Your task to perform on an android device: change text size in settings app Image 0: 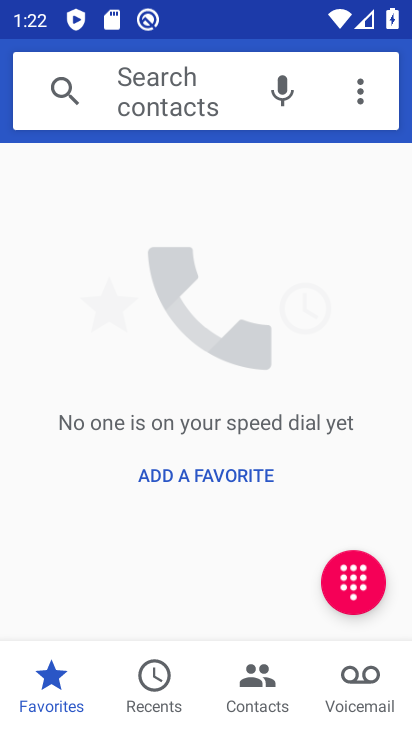
Step 0: press home button
Your task to perform on an android device: change text size in settings app Image 1: 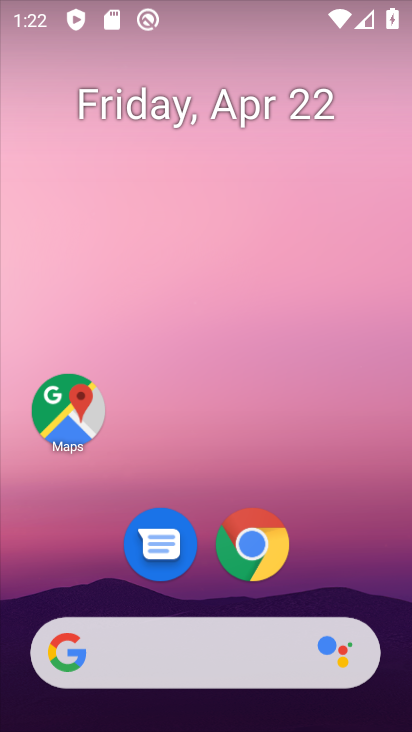
Step 1: drag from (323, 520) to (300, 10)
Your task to perform on an android device: change text size in settings app Image 2: 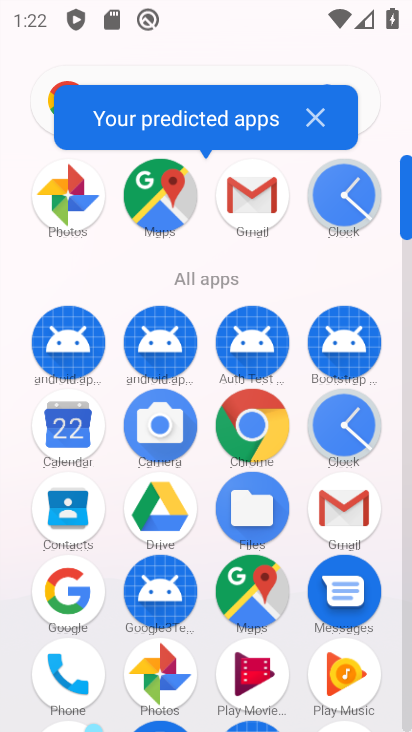
Step 2: drag from (303, 296) to (361, 88)
Your task to perform on an android device: change text size in settings app Image 3: 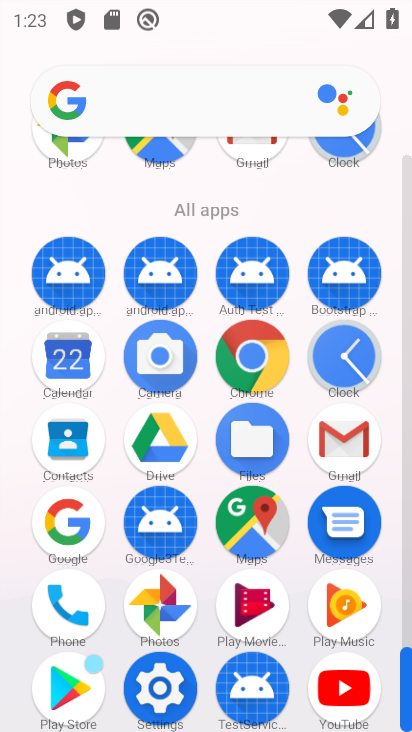
Step 3: click (161, 693)
Your task to perform on an android device: change text size in settings app Image 4: 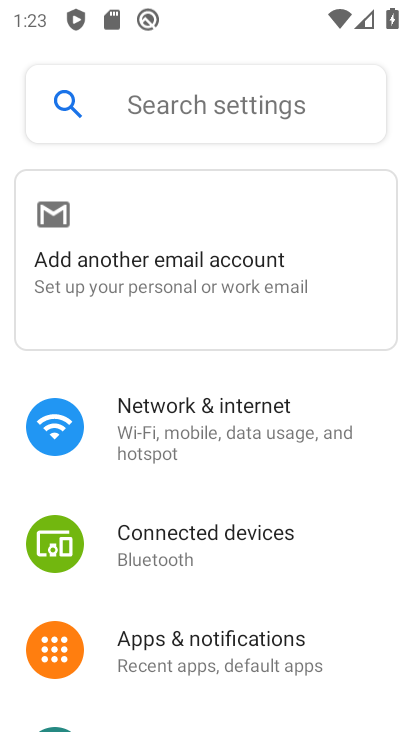
Step 4: drag from (231, 608) to (301, 485)
Your task to perform on an android device: change text size in settings app Image 5: 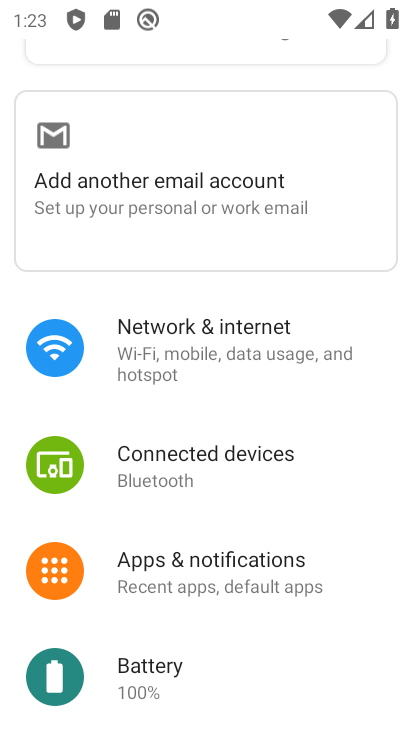
Step 5: drag from (202, 619) to (286, 517)
Your task to perform on an android device: change text size in settings app Image 6: 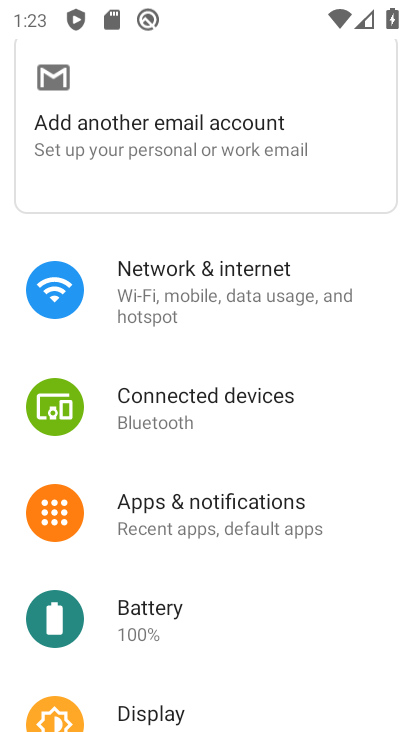
Step 6: drag from (222, 631) to (320, 491)
Your task to perform on an android device: change text size in settings app Image 7: 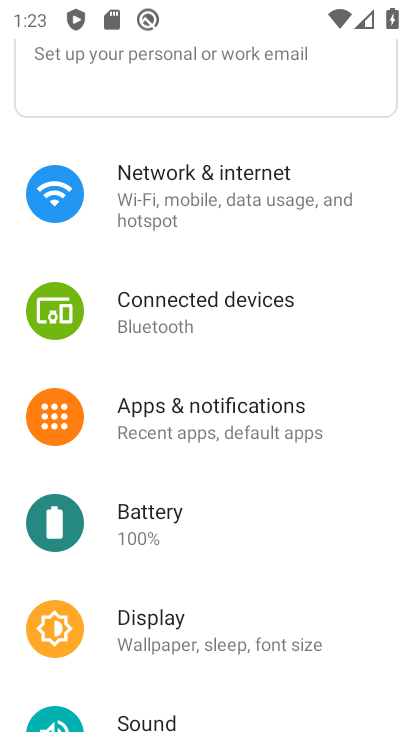
Step 7: drag from (240, 596) to (301, 516)
Your task to perform on an android device: change text size in settings app Image 8: 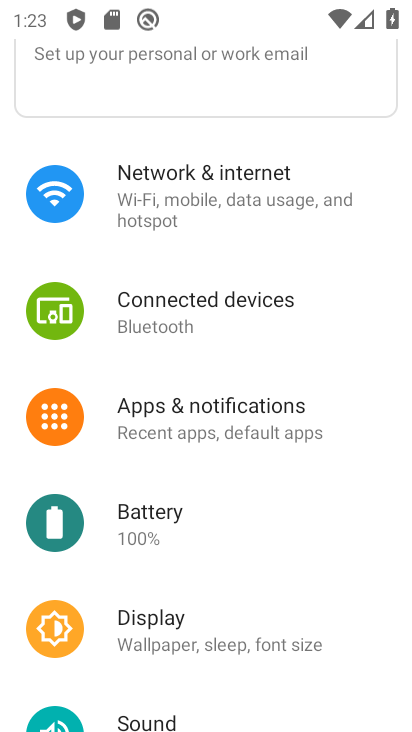
Step 8: drag from (252, 684) to (321, 562)
Your task to perform on an android device: change text size in settings app Image 9: 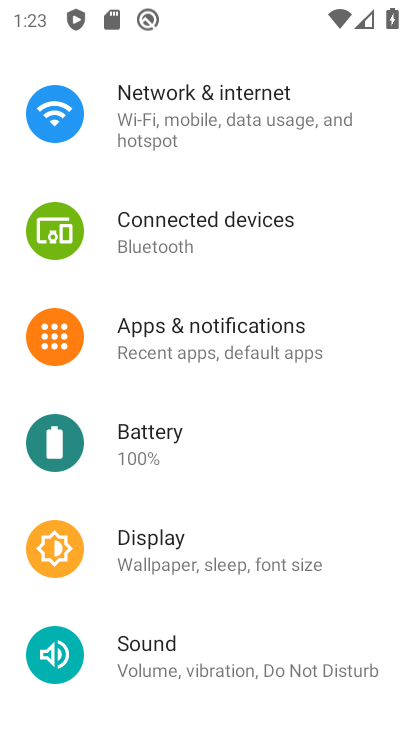
Step 9: drag from (273, 615) to (333, 437)
Your task to perform on an android device: change text size in settings app Image 10: 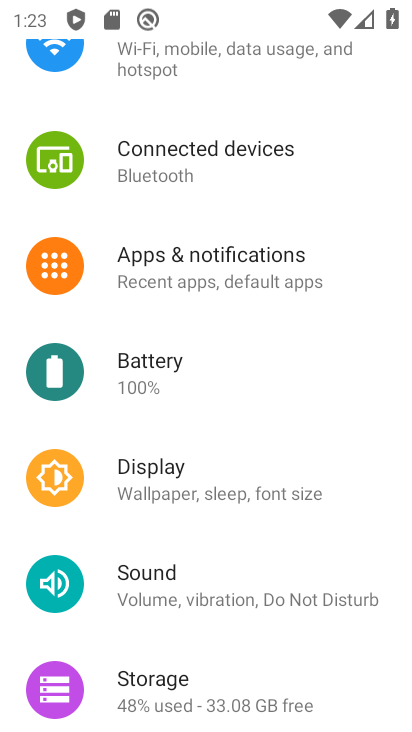
Step 10: drag from (219, 641) to (329, 439)
Your task to perform on an android device: change text size in settings app Image 11: 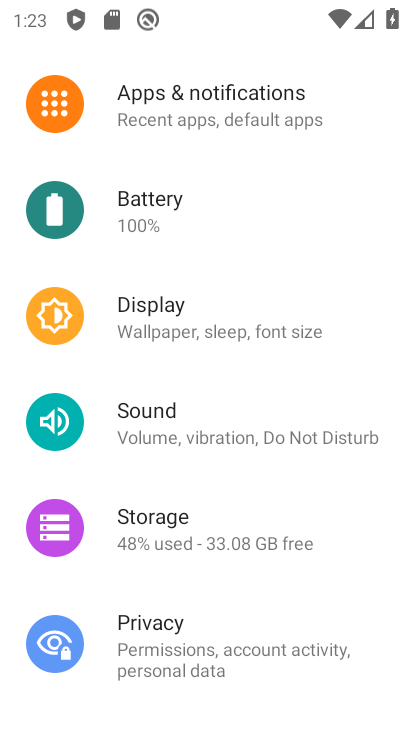
Step 11: drag from (228, 568) to (316, 421)
Your task to perform on an android device: change text size in settings app Image 12: 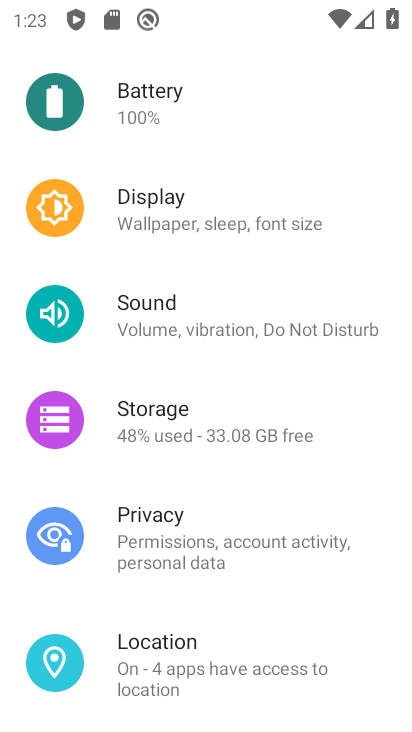
Step 12: drag from (237, 594) to (334, 460)
Your task to perform on an android device: change text size in settings app Image 13: 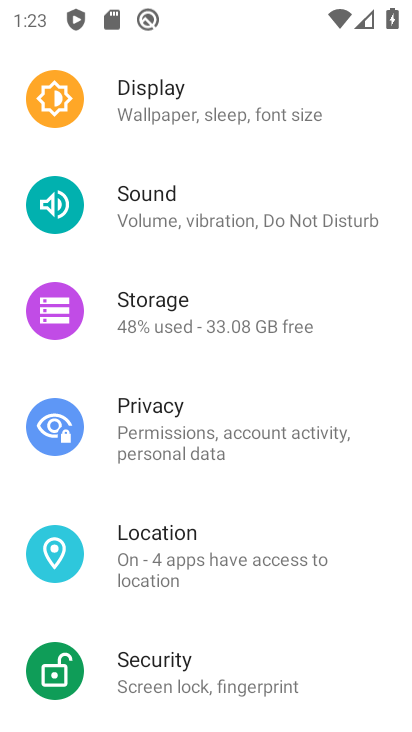
Step 13: drag from (256, 605) to (383, 441)
Your task to perform on an android device: change text size in settings app Image 14: 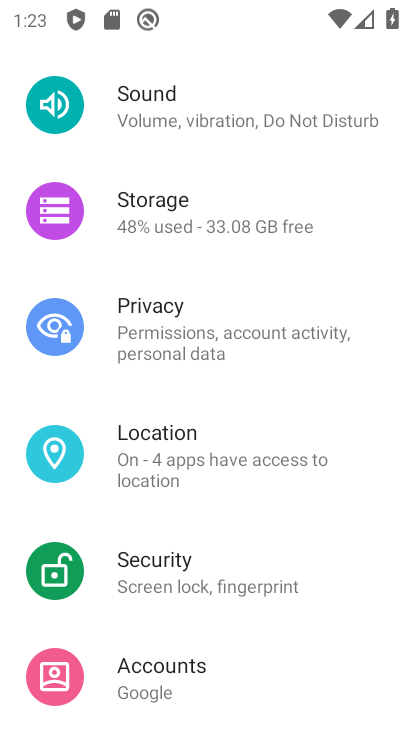
Step 14: drag from (250, 598) to (356, 460)
Your task to perform on an android device: change text size in settings app Image 15: 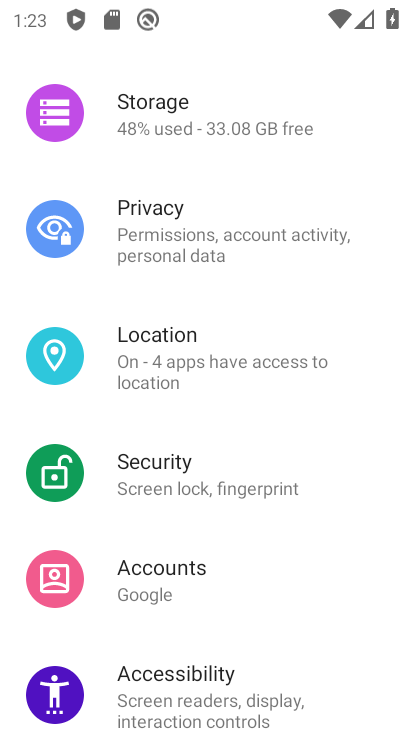
Step 15: drag from (257, 608) to (343, 450)
Your task to perform on an android device: change text size in settings app Image 16: 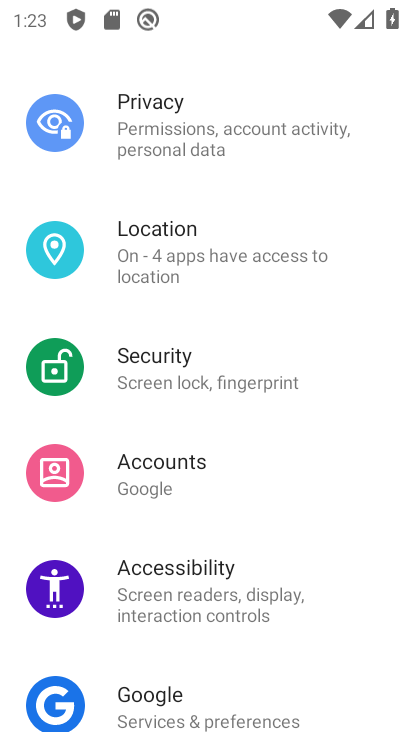
Step 16: click (178, 570)
Your task to perform on an android device: change text size in settings app Image 17: 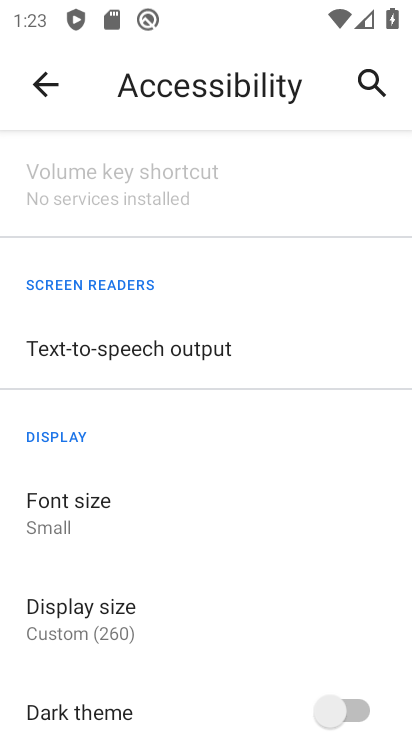
Step 17: drag from (199, 553) to (274, 465)
Your task to perform on an android device: change text size in settings app Image 18: 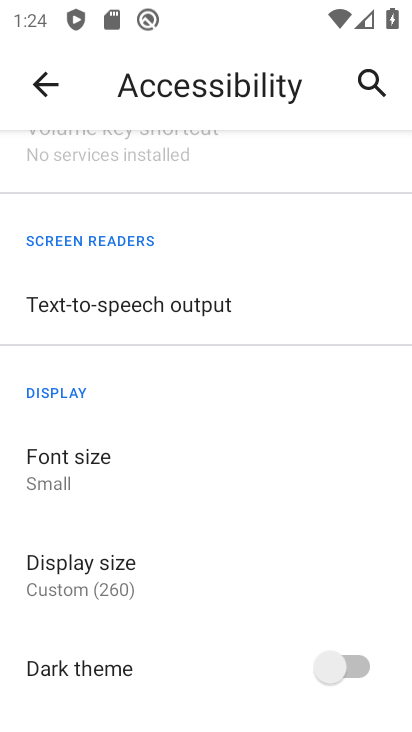
Step 18: click (86, 471)
Your task to perform on an android device: change text size in settings app Image 19: 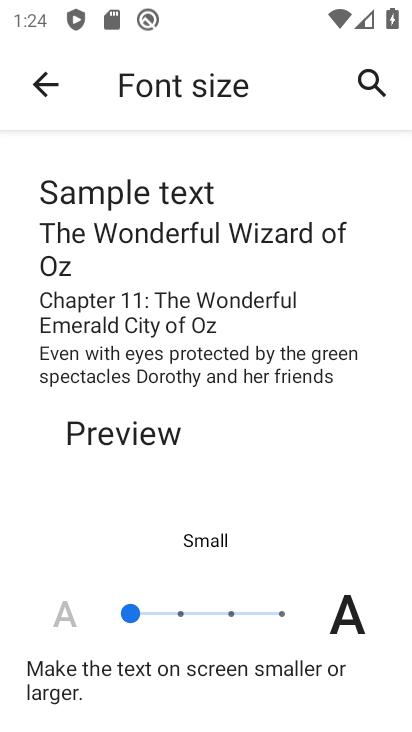
Step 19: click (183, 617)
Your task to perform on an android device: change text size in settings app Image 20: 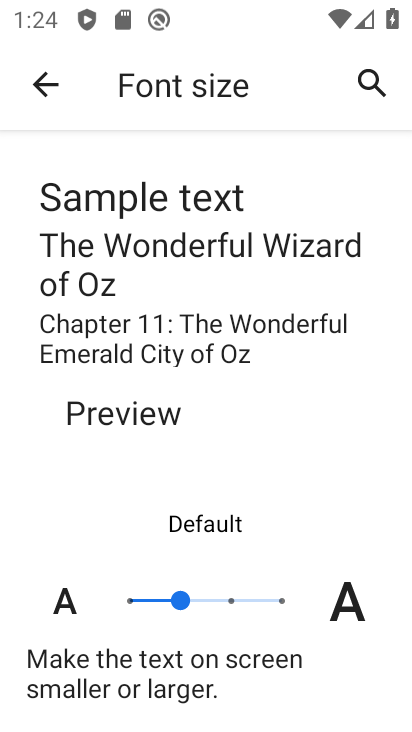
Step 20: task complete